Your task to perform on an android device: change the clock style Image 0: 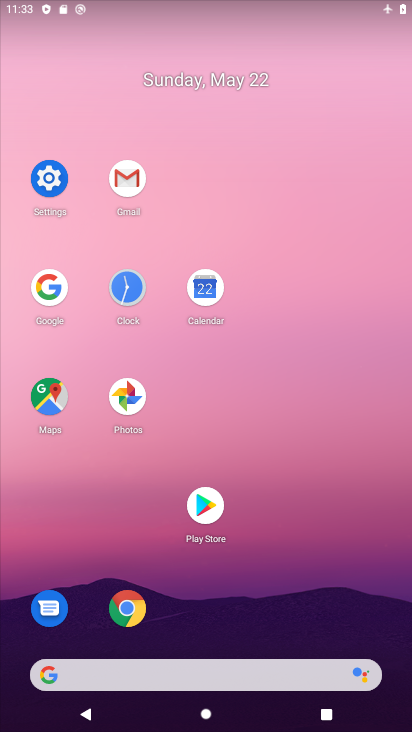
Step 0: click (139, 285)
Your task to perform on an android device: change the clock style Image 1: 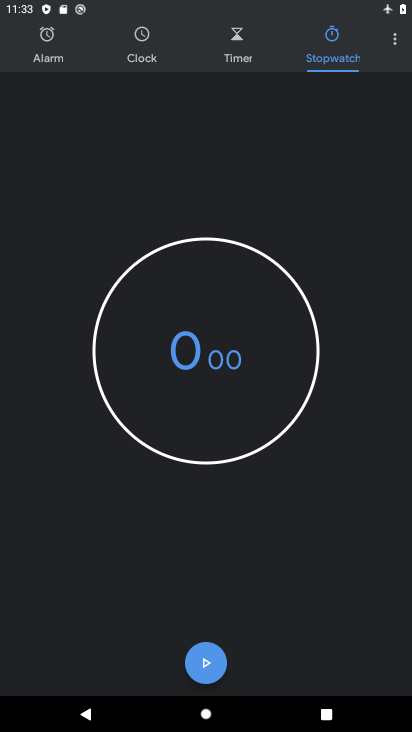
Step 1: click (397, 40)
Your task to perform on an android device: change the clock style Image 2: 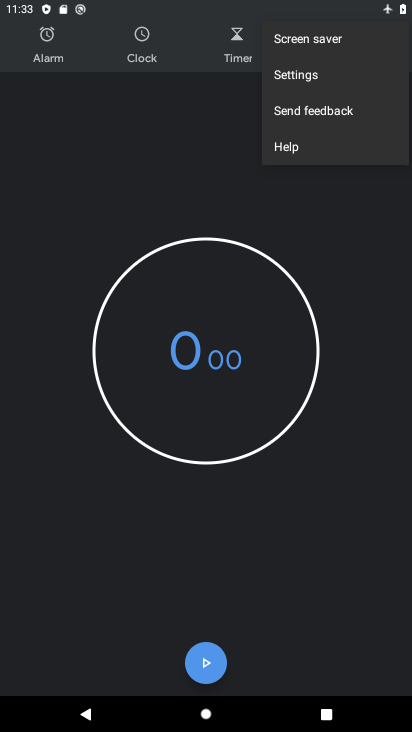
Step 2: click (293, 75)
Your task to perform on an android device: change the clock style Image 3: 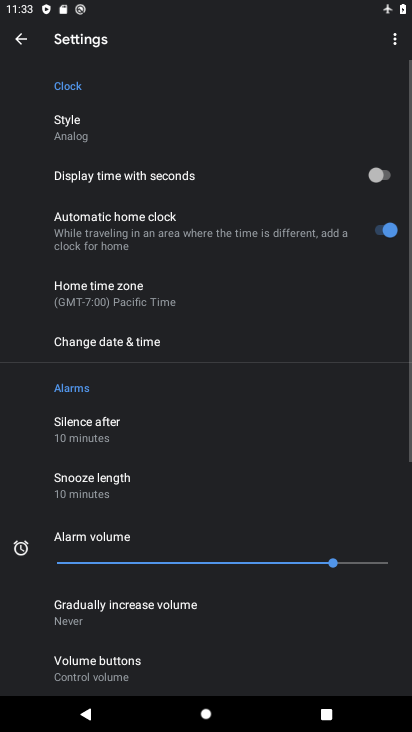
Step 3: click (128, 119)
Your task to perform on an android device: change the clock style Image 4: 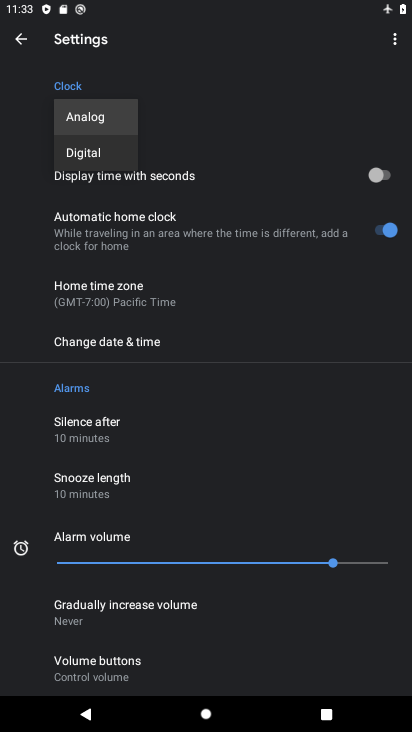
Step 4: click (117, 150)
Your task to perform on an android device: change the clock style Image 5: 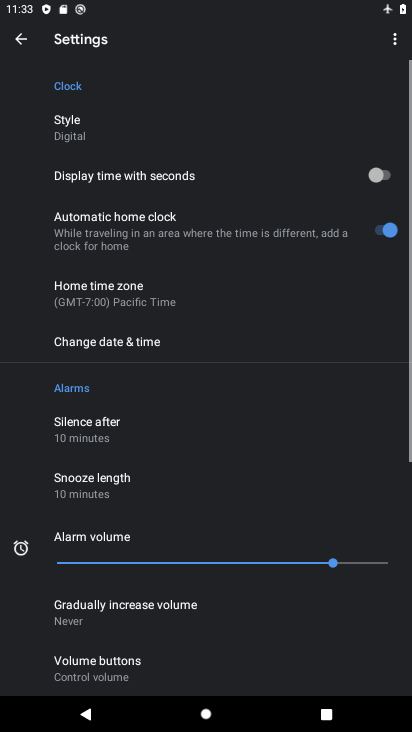
Step 5: task complete